Your task to perform on an android device: Toggle the flashlight Image 0: 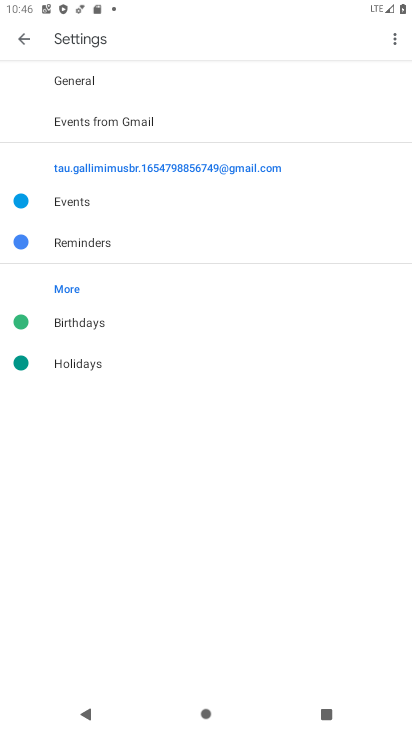
Step 0: press home button
Your task to perform on an android device: Toggle the flashlight Image 1: 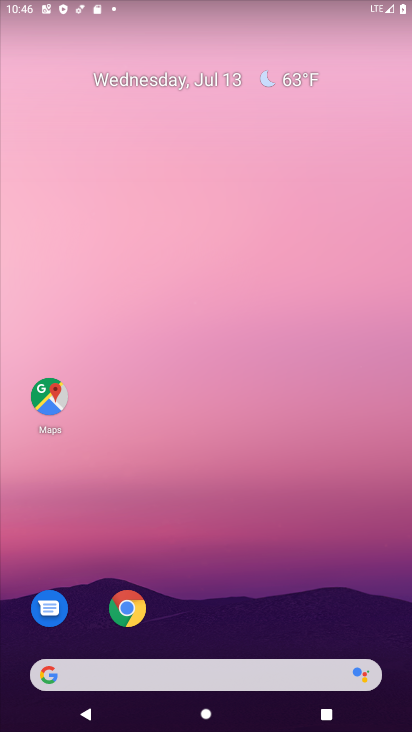
Step 1: task complete